Your task to perform on an android device: turn on bluetooth scan Image 0: 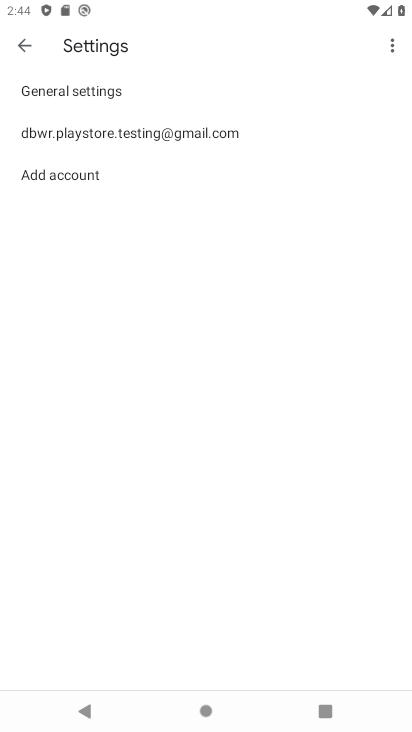
Step 0: press home button
Your task to perform on an android device: turn on bluetooth scan Image 1: 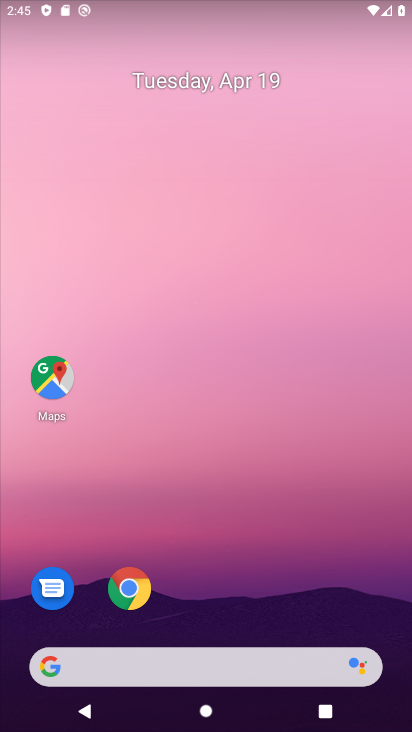
Step 1: drag from (270, 669) to (285, 258)
Your task to perform on an android device: turn on bluetooth scan Image 2: 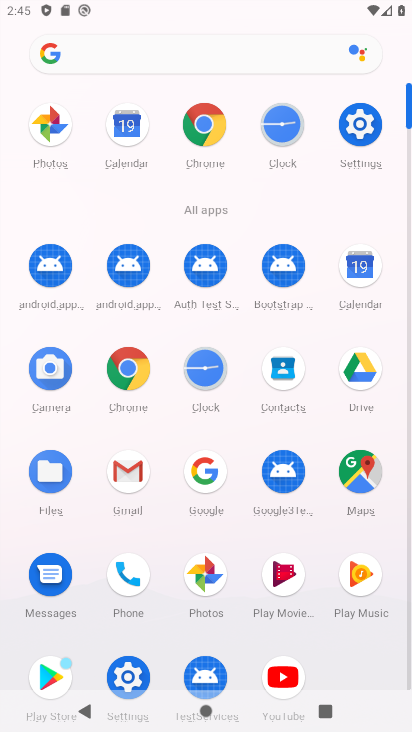
Step 2: click (347, 105)
Your task to perform on an android device: turn on bluetooth scan Image 3: 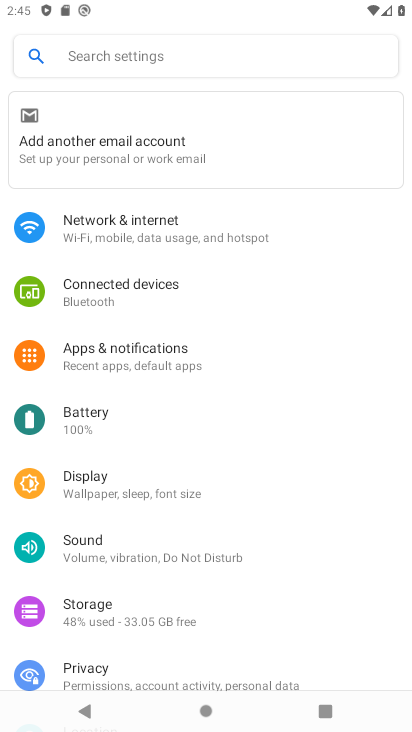
Step 3: click (215, 71)
Your task to perform on an android device: turn on bluetooth scan Image 4: 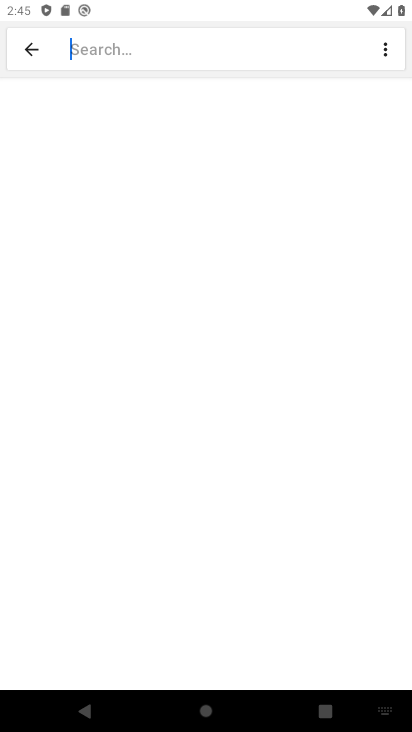
Step 4: click (385, 702)
Your task to perform on an android device: turn on bluetooth scan Image 5: 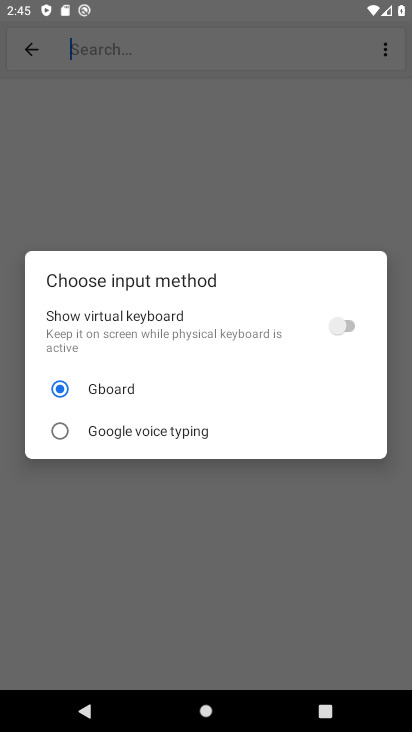
Step 5: click (360, 332)
Your task to perform on an android device: turn on bluetooth scan Image 6: 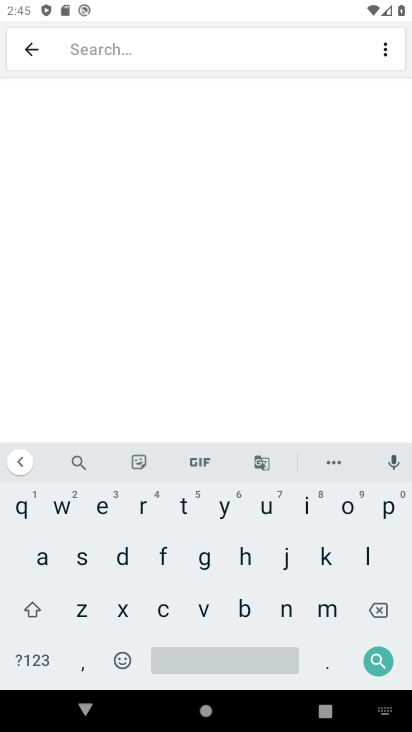
Step 6: click (369, 559)
Your task to perform on an android device: turn on bluetooth scan Image 7: 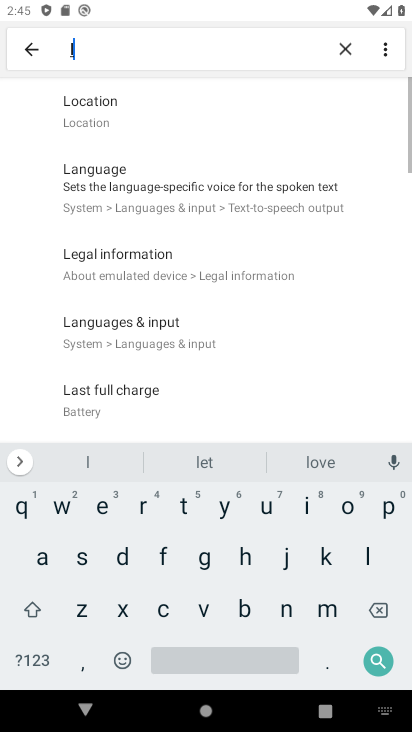
Step 7: click (350, 505)
Your task to perform on an android device: turn on bluetooth scan Image 8: 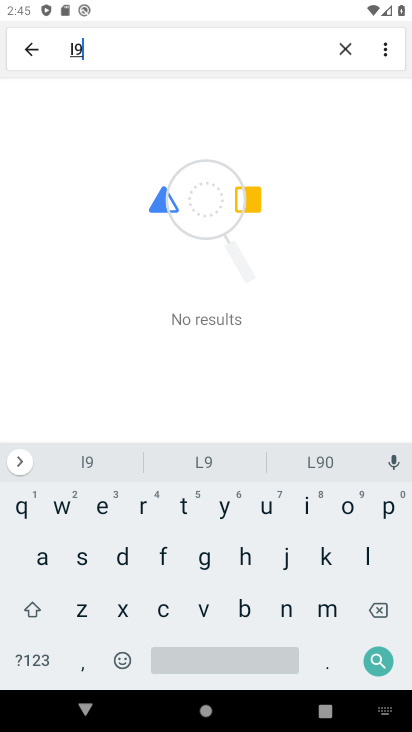
Step 8: click (383, 607)
Your task to perform on an android device: turn on bluetooth scan Image 9: 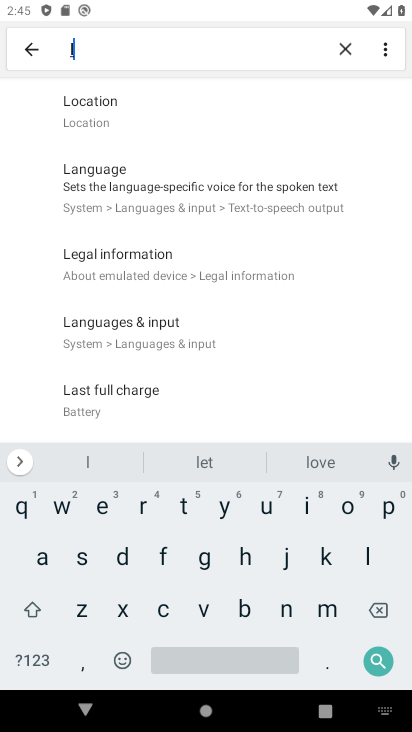
Step 9: click (132, 102)
Your task to perform on an android device: turn on bluetooth scan Image 10: 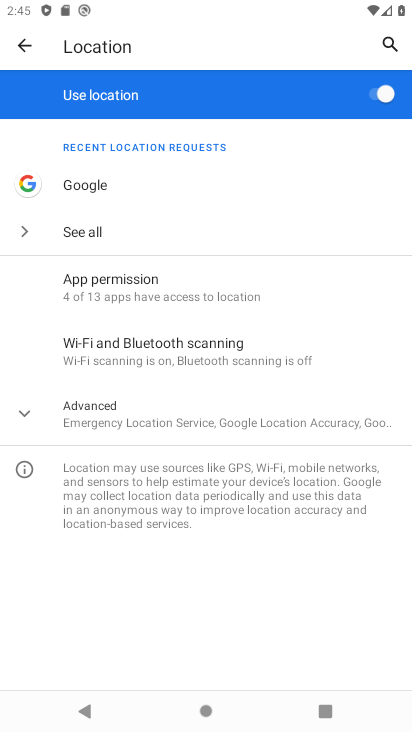
Step 10: click (141, 344)
Your task to perform on an android device: turn on bluetooth scan Image 11: 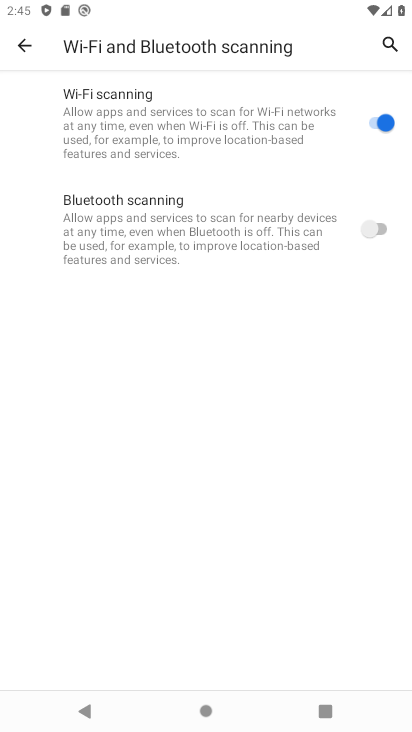
Step 11: click (334, 251)
Your task to perform on an android device: turn on bluetooth scan Image 12: 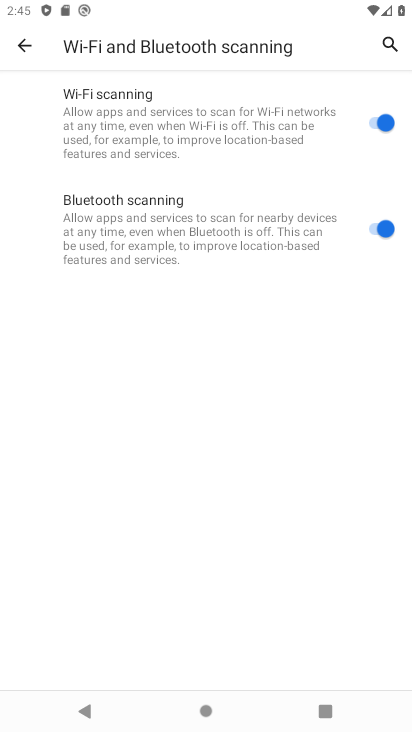
Step 12: task complete